Your task to perform on an android device: toggle pop-ups in chrome Image 0: 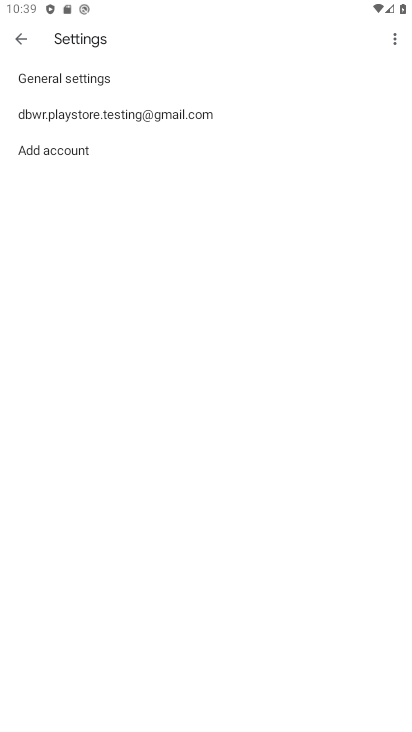
Step 0: press home button
Your task to perform on an android device: toggle pop-ups in chrome Image 1: 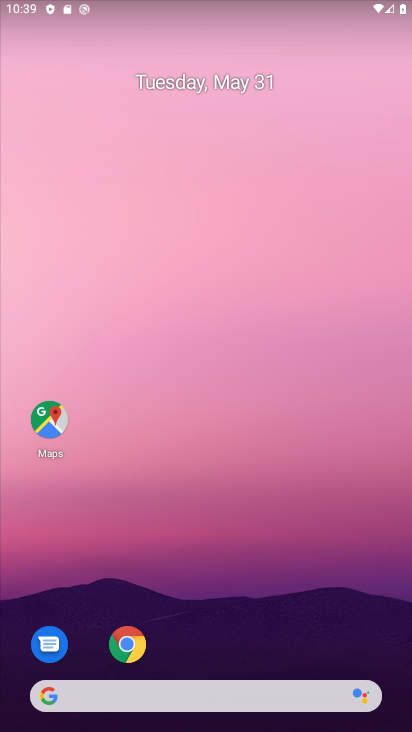
Step 1: drag from (182, 624) to (218, 247)
Your task to perform on an android device: toggle pop-ups in chrome Image 2: 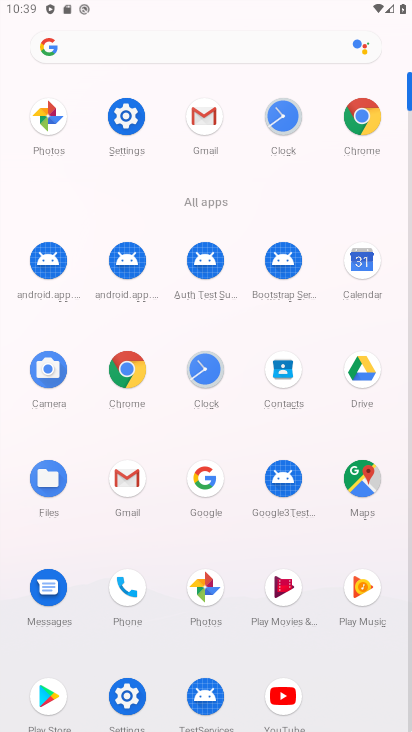
Step 2: click (124, 369)
Your task to perform on an android device: toggle pop-ups in chrome Image 3: 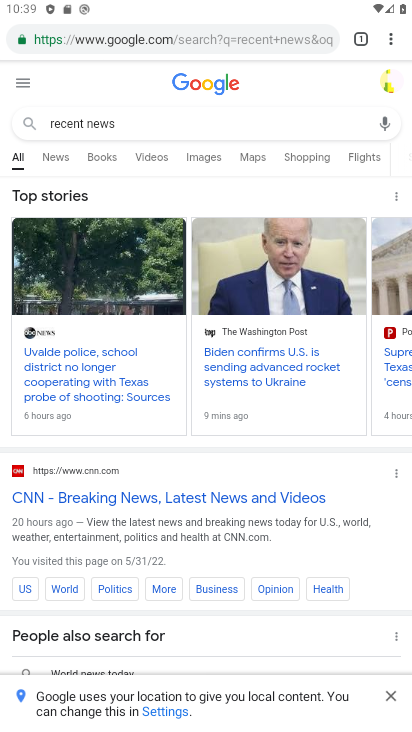
Step 3: click (392, 41)
Your task to perform on an android device: toggle pop-ups in chrome Image 4: 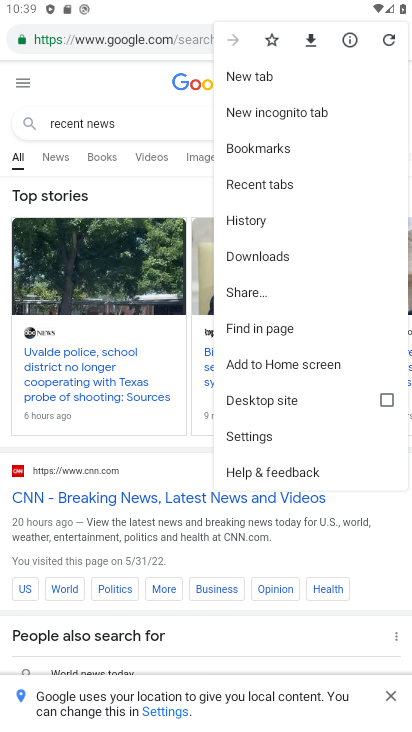
Step 4: click (262, 441)
Your task to perform on an android device: toggle pop-ups in chrome Image 5: 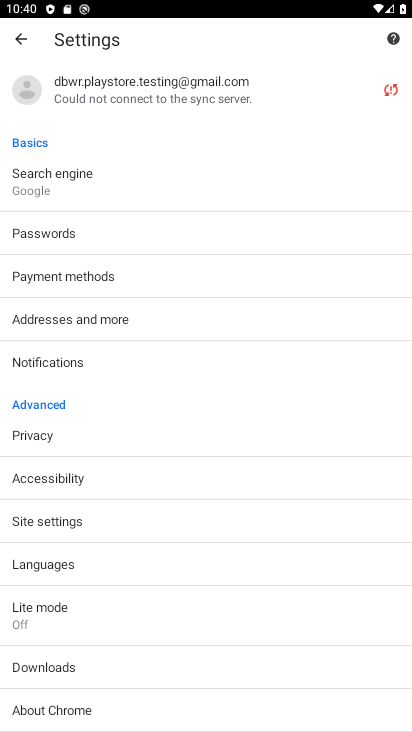
Step 5: drag from (101, 620) to (137, 378)
Your task to perform on an android device: toggle pop-ups in chrome Image 6: 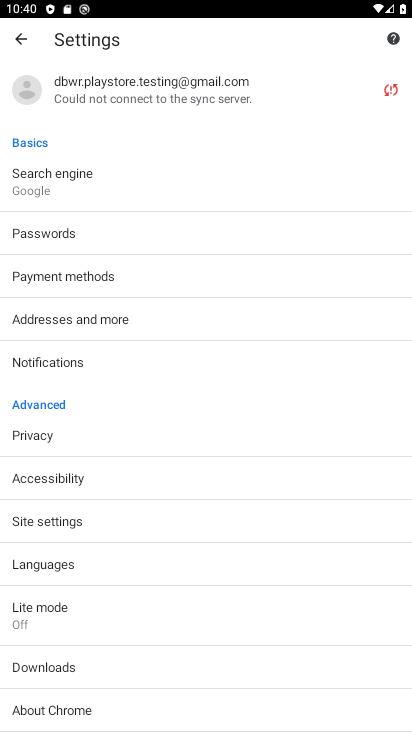
Step 6: click (59, 524)
Your task to perform on an android device: toggle pop-ups in chrome Image 7: 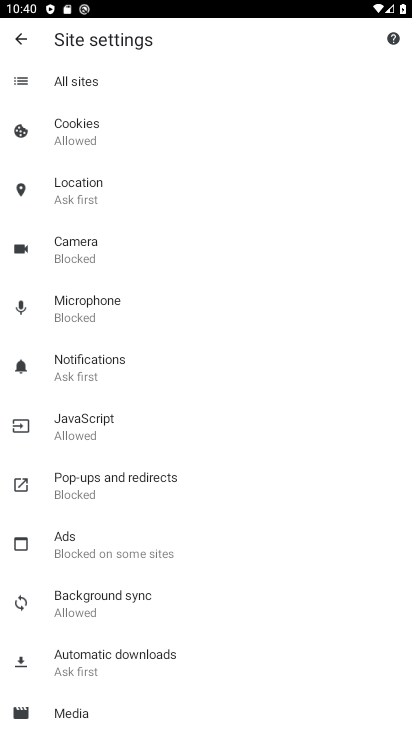
Step 7: click (147, 466)
Your task to perform on an android device: toggle pop-ups in chrome Image 8: 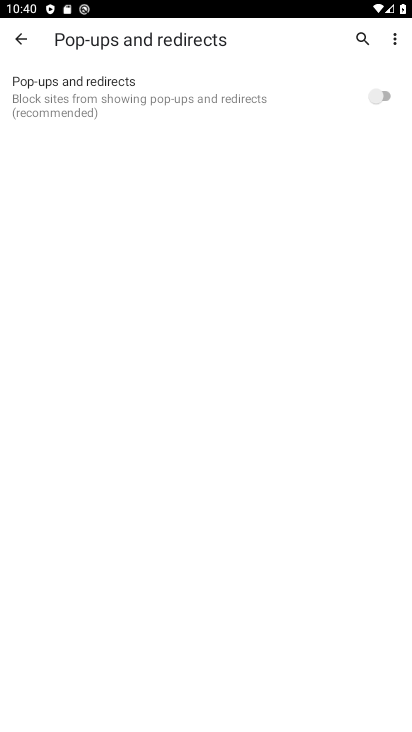
Step 8: click (385, 90)
Your task to perform on an android device: toggle pop-ups in chrome Image 9: 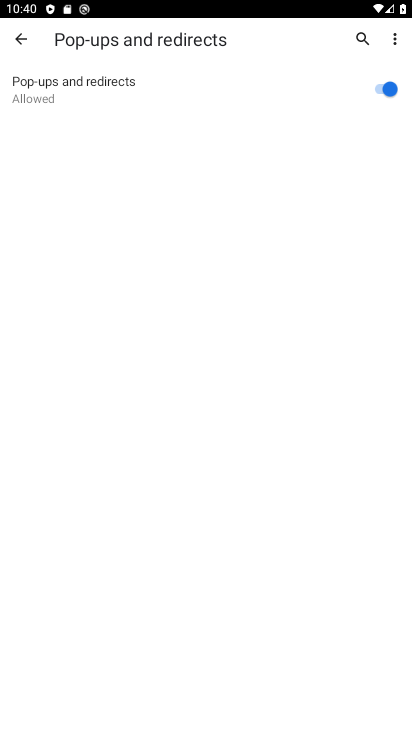
Step 9: task complete